Your task to perform on an android device: Open network settings Image 0: 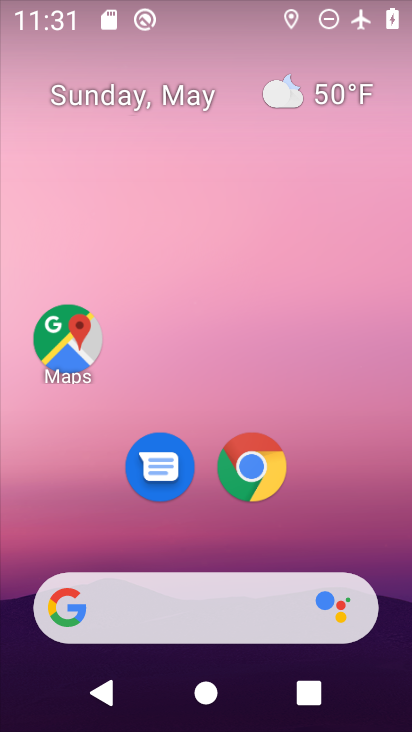
Step 0: drag from (222, 541) to (196, 170)
Your task to perform on an android device: Open network settings Image 1: 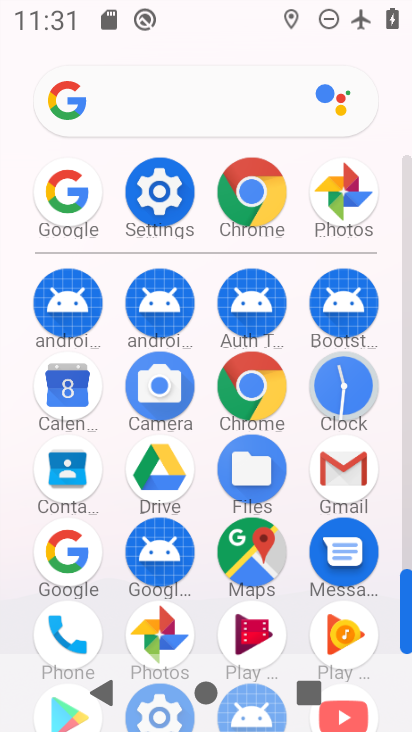
Step 1: click (151, 177)
Your task to perform on an android device: Open network settings Image 2: 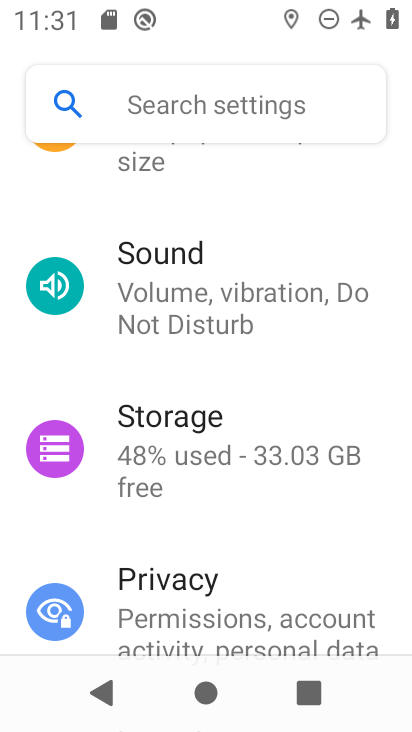
Step 2: drag from (152, 178) to (172, 441)
Your task to perform on an android device: Open network settings Image 3: 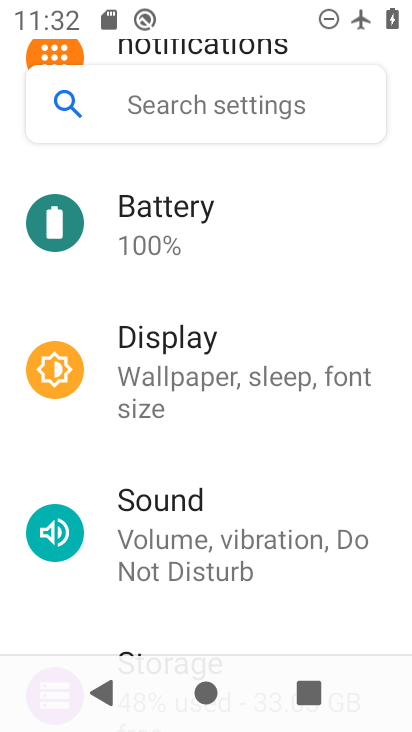
Step 3: drag from (222, 166) to (219, 479)
Your task to perform on an android device: Open network settings Image 4: 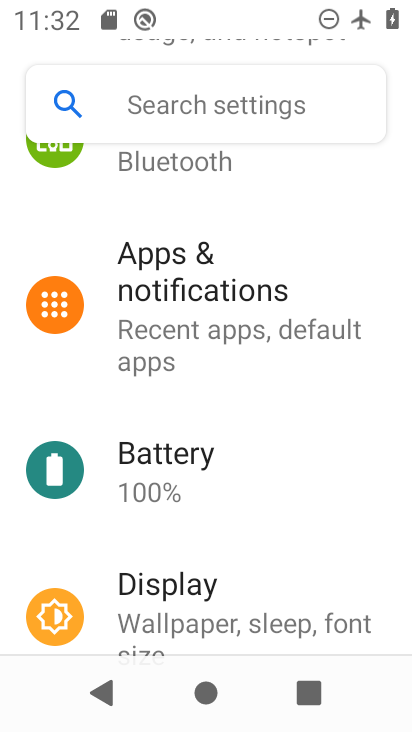
Step 4: drag from (238, 247) to (246, 483)
Your task to perform on an android device: Open network settings Image 5: 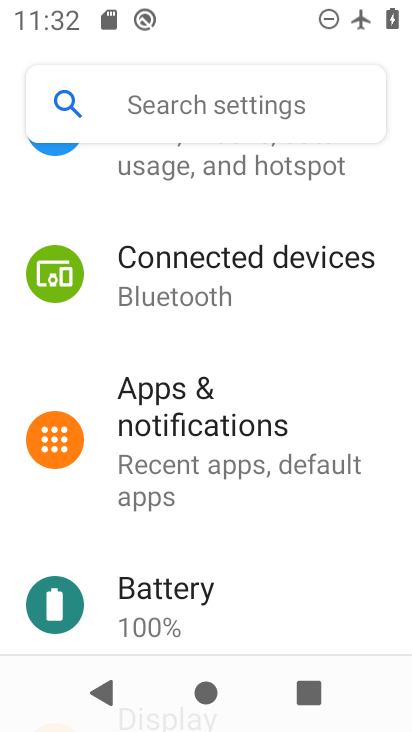
Step 5: drag from (213, 190) to (225, 459)
Your task to perform on an android device: Open network settings Image 6: 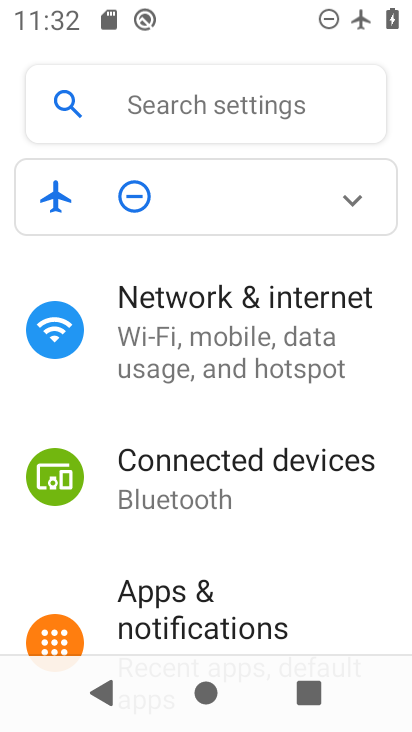
Step 6: click (207, 322)
Your task to perform on an android device: Open network settings Image 7: 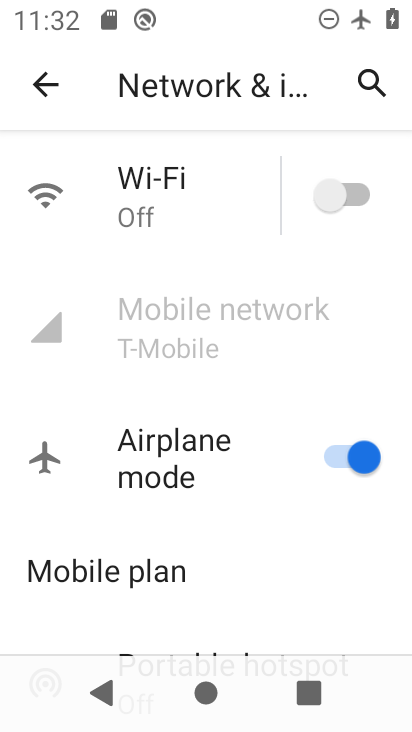
Step 7: task complete